Your task to perform on an android device: choose inbox layout in the gmail app Image 0: 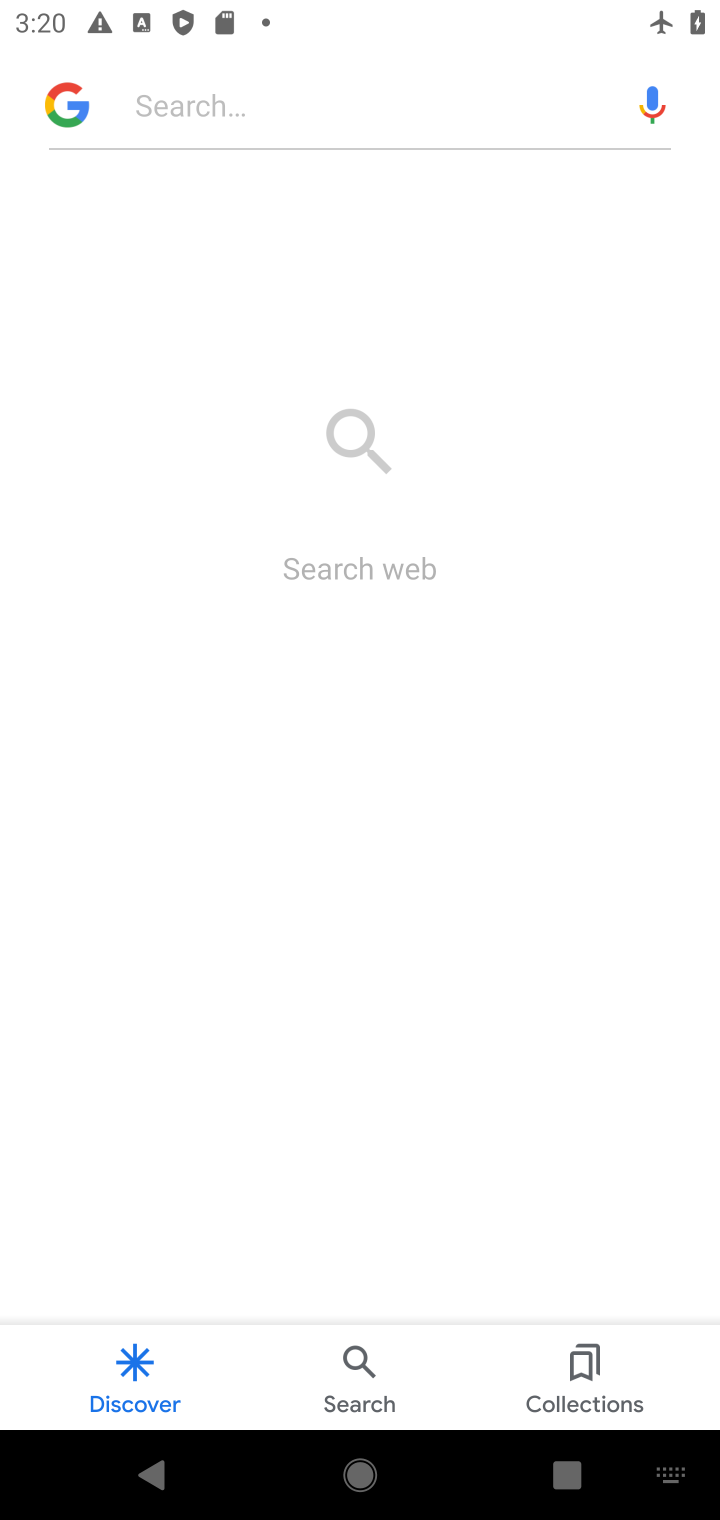
Step 0: press home button
Your task to perform on an android device: choose inbox layout in the gmail app Image 1: 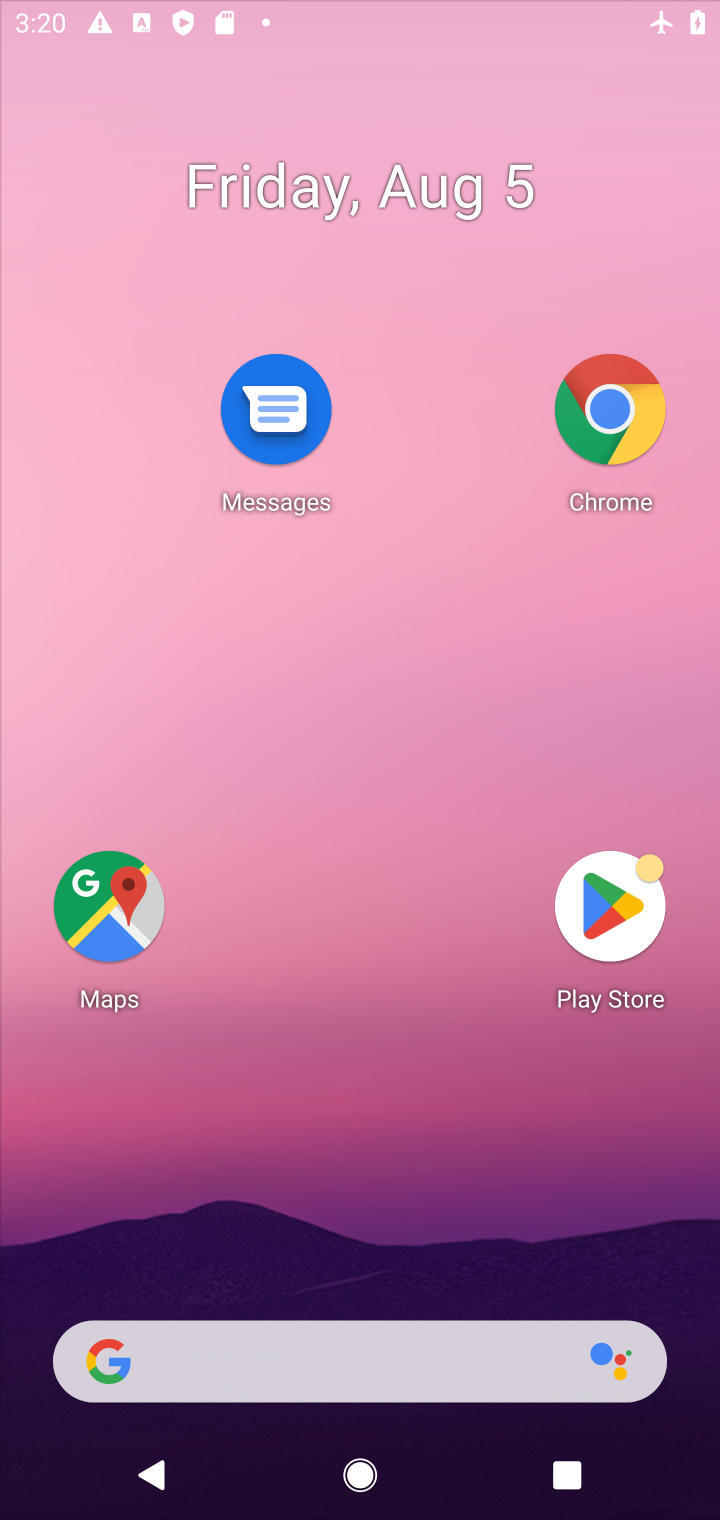
Step 1: drag from (409, 766) to (457, 261)
Your task to perform on an android device: choose inbox layout in the gmail app Image 2: 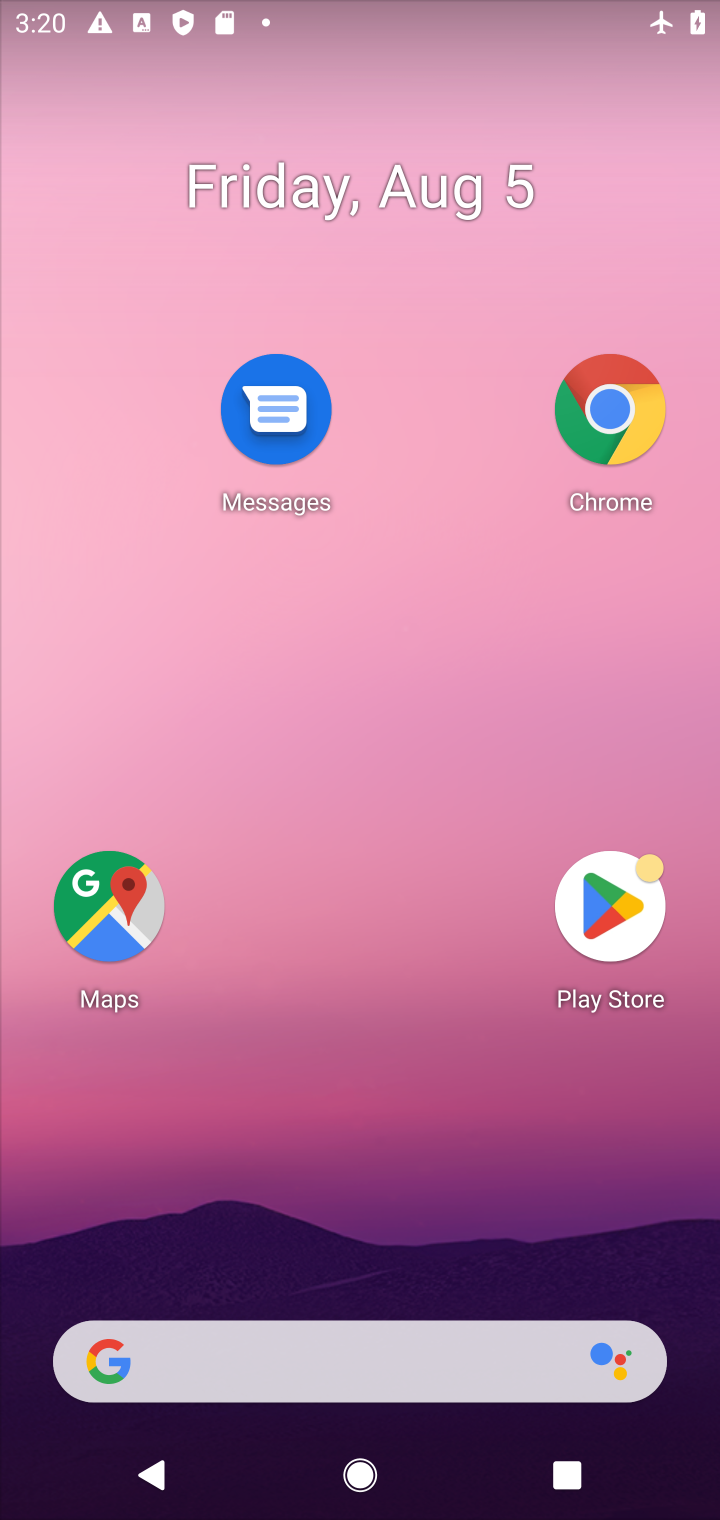
Step 2: drag from (404, 1011) to (404, 265)
Your task to perform on an android device: choose inbox layout in the gmail app Image 3: 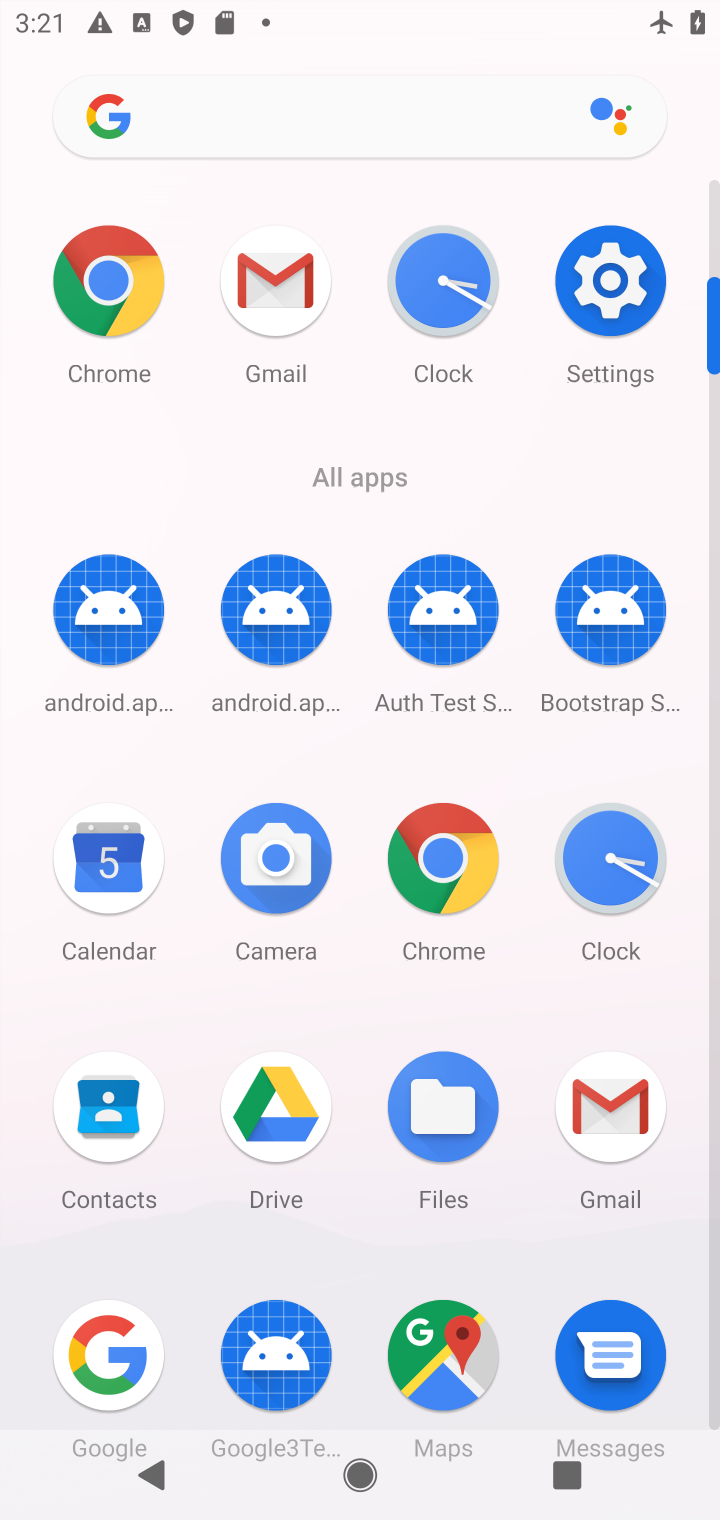
Step 3: click (290, 302)
Your task to perform on an android device: choose inbox layout in the gmail app Image 4: 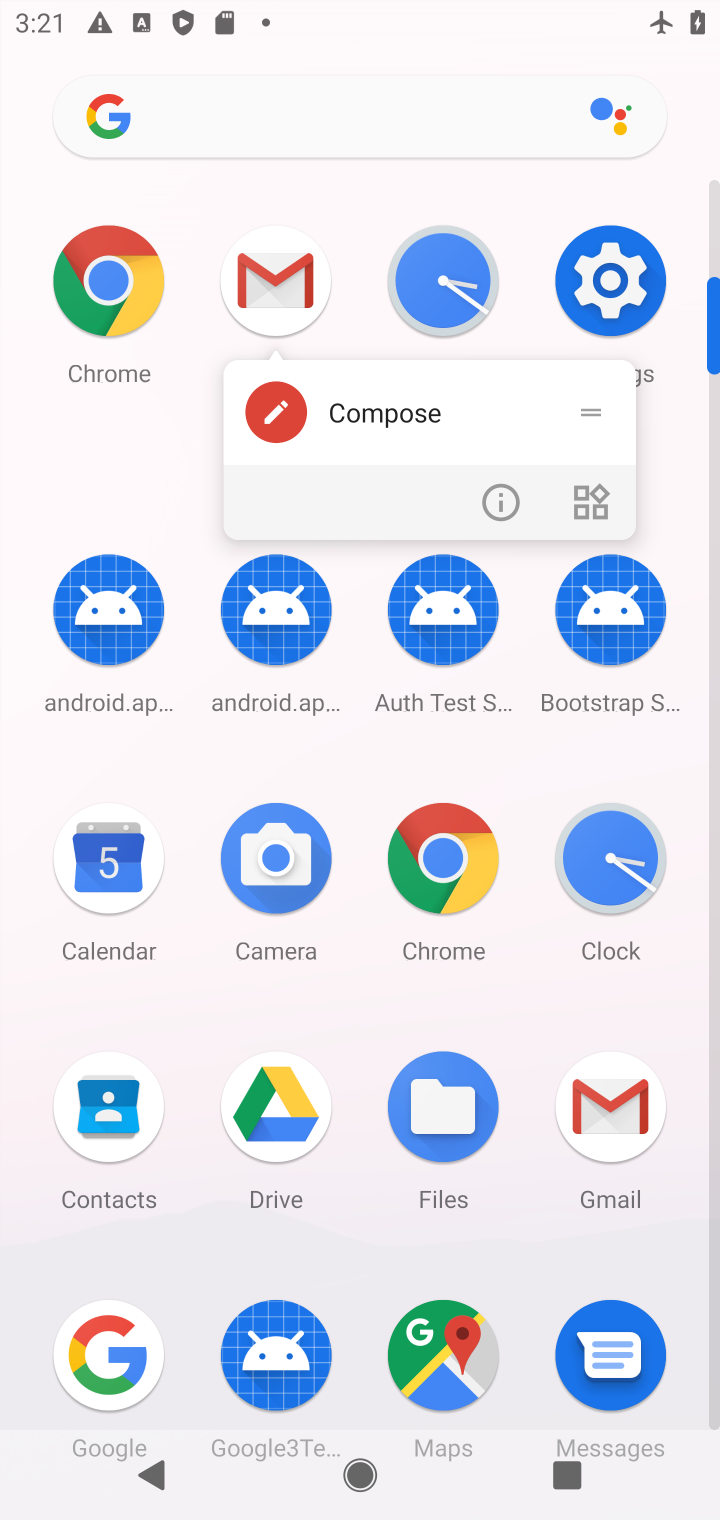
Step 4: click (263, 225)
Your task to perform on an android device: choose inbox layout in the gmail app Image 5: 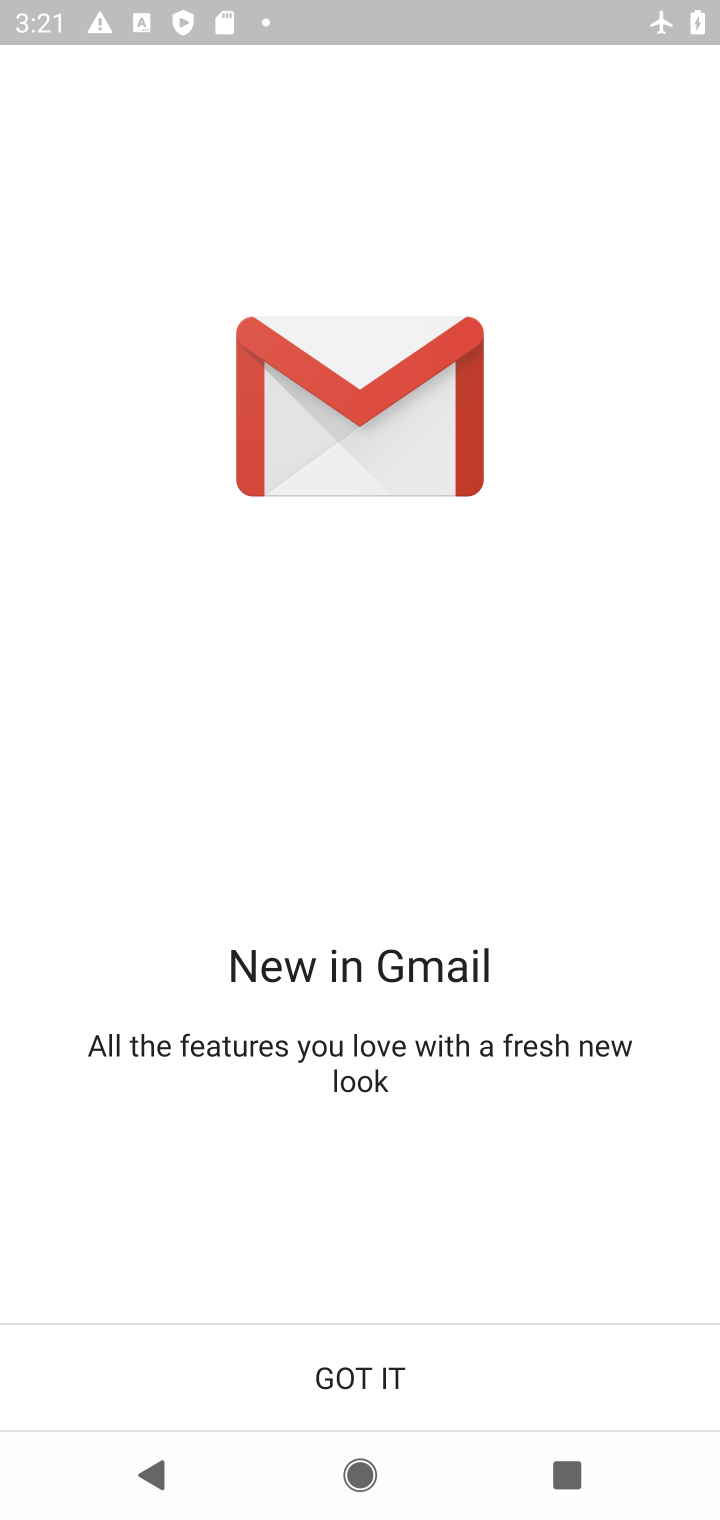
Step 5: click (397, 1355)
Your task to perform on an android device: choose inbox layout in the gmail app Image 6: 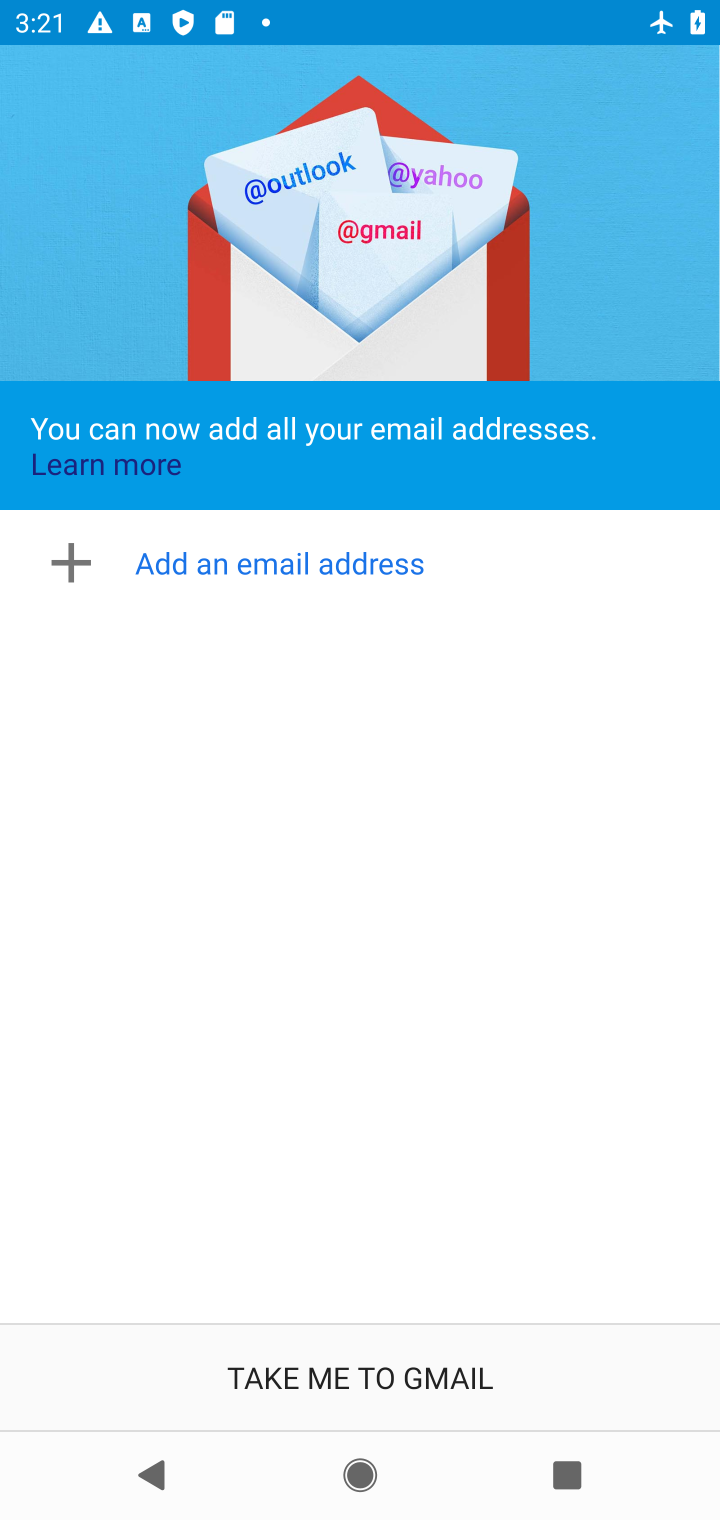
Step 6: task complete